Your task to perform on an android device: uninstall "Pinterest" Image 0: 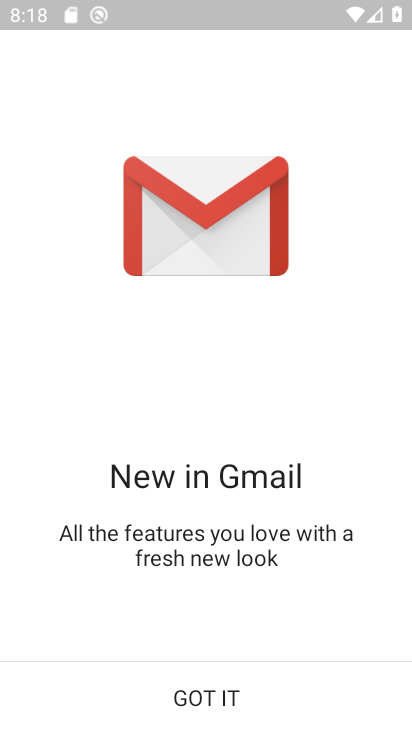
Step 0: press home button
Your task to perform on an android device: uninstall "Pinterest" Image 1: 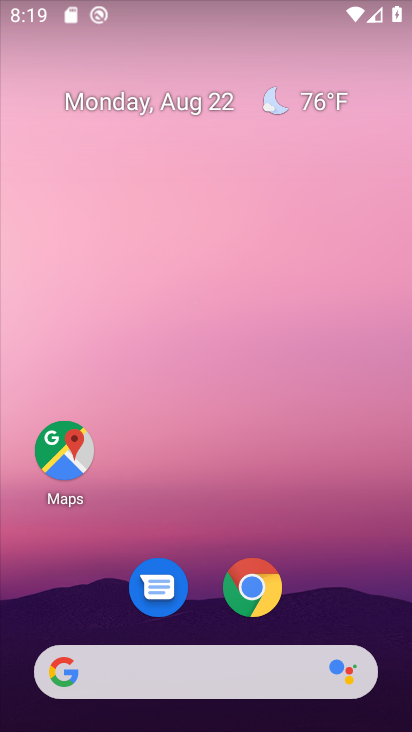
Step 1: drag from (372, 614) to (343, 160)
Your task to perform on an android device: uninstall "Pinterest" Image 2: 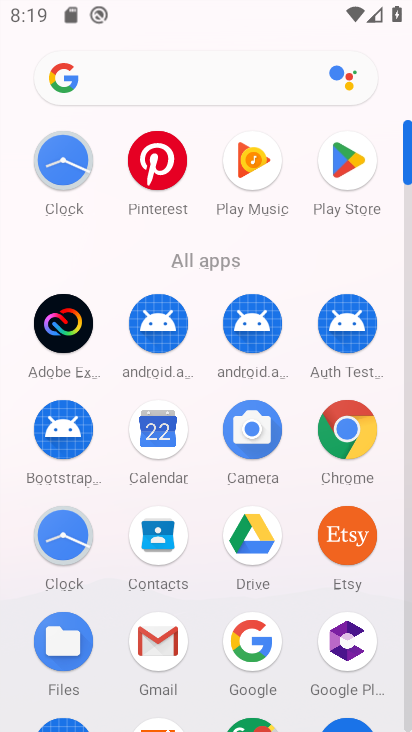
Step 2: drag from (295, 496) to (294, 107)
Your task to perform on an android device: uninstall "Pinterest" Image 3: 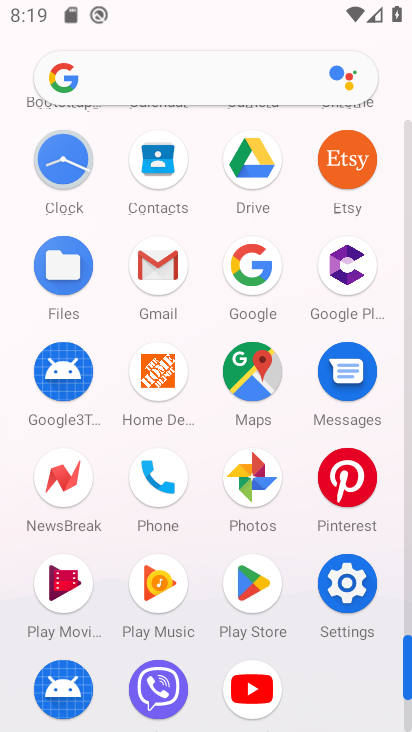
Step 3: drag from (339, 485) to (268, 181)
Your task to perform on an android device: uninstall "Pinterest" Image 4: 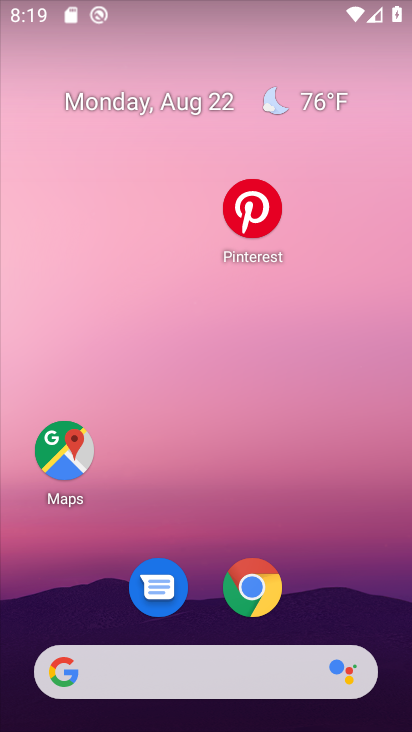
Step 4: drag from (249, 242) to (294, 54)
Your task to perform on an android device: uninstall "Pinterest" Image 5: 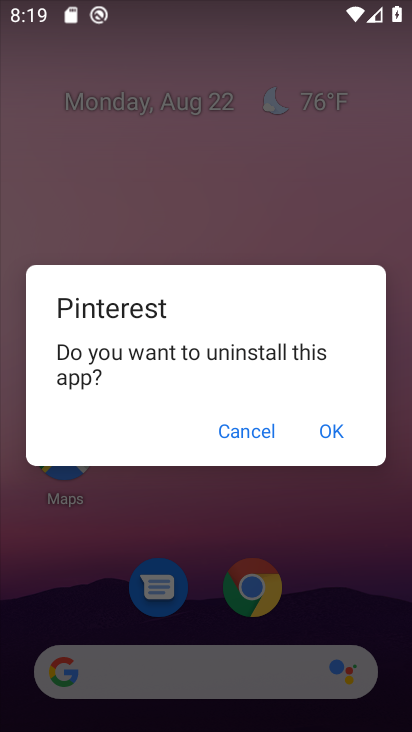
Step 5: click (328, 425)
Your task to perform on an android device: uninstall "Pinterest" Image 6: 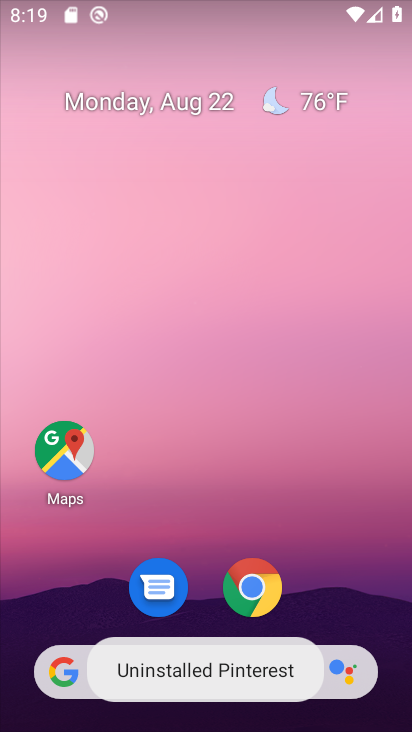
Step 6: task complete